Your task to perform on an android device: Open privacy settings Image 0: 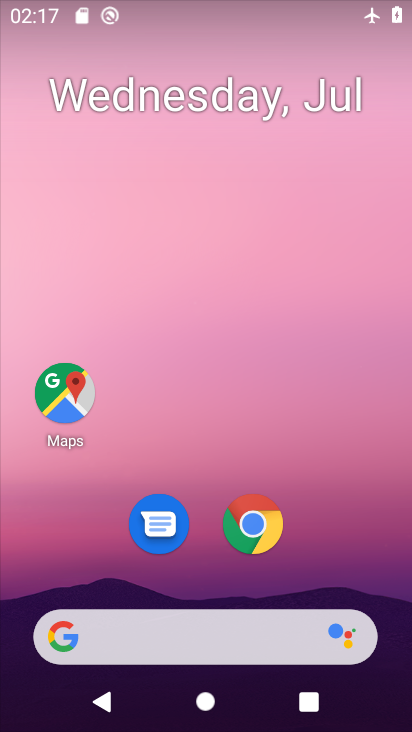
Step 0: drag from (324, 533) to (352, 21)
Your task to perform on an android device: Open privacy settings Image 1: 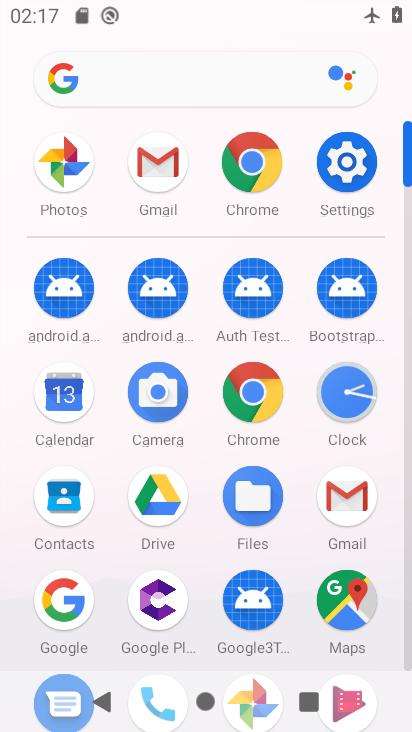
Step 1: click (346, 163)
Your task to perform on an android device: Open privacy settings Image 2: 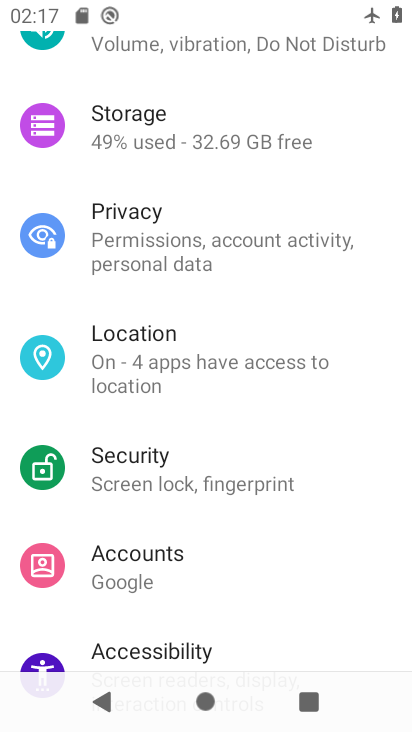
Step 2: click (207, 241)
Your task to perform on an android device: Open privacy settings Image 3: 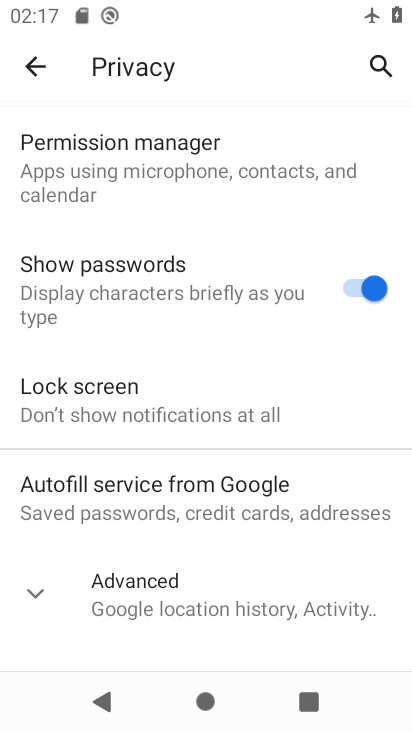
Step 3: task complete